Your task to perform on an android device: check google app version Image 0: 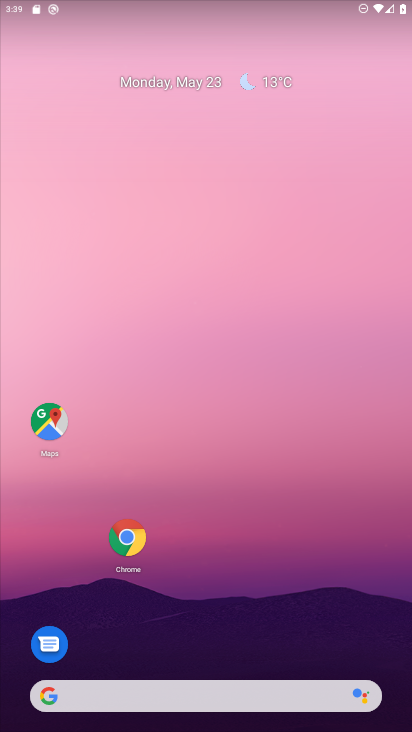
Step 0: drag from (287, 600) to (224, 121)
Your task to perform on an android device: check google app version Image 1: 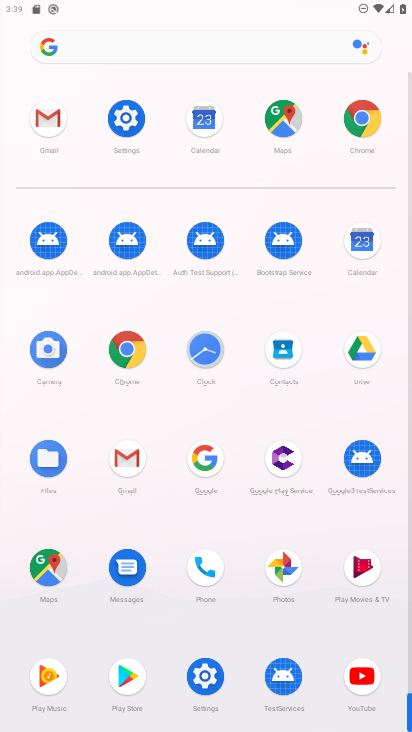
Step 1: click (209, 455)
Your task to perform on an android device: check google app version Image 2: 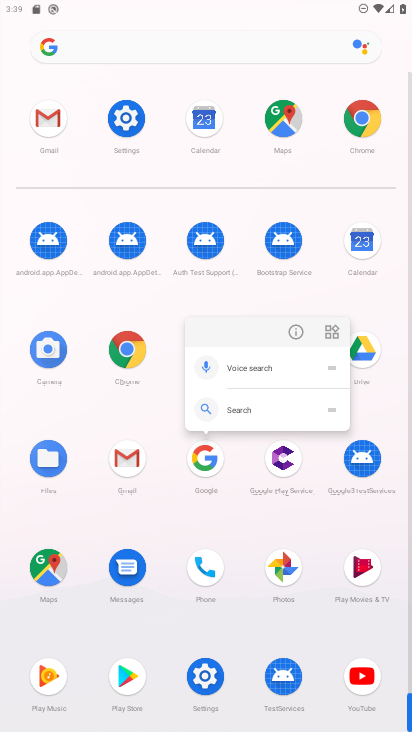
Step 2: click (293, 333)
Your task to perform on an android device: check google app version Image 3: 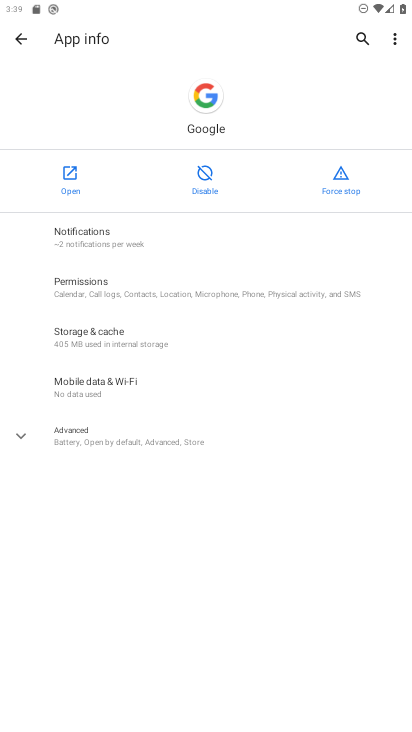
Step 3: click (104, 425)
Your task to perform on an android device: check google app version Image 4: 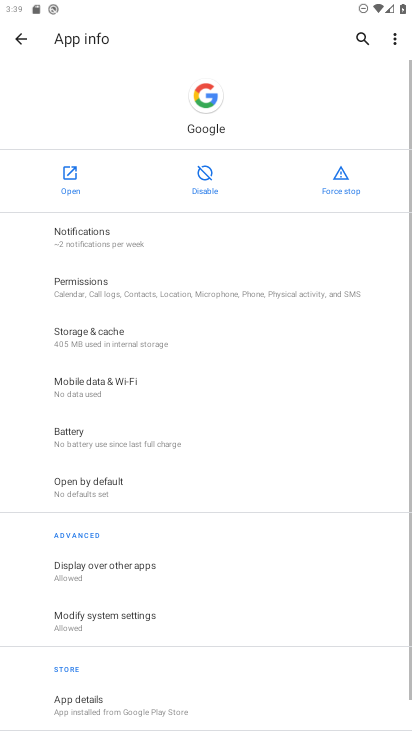
Step 4: task complete